Your task to perform on an android device: Do I have any events today? Image 0: 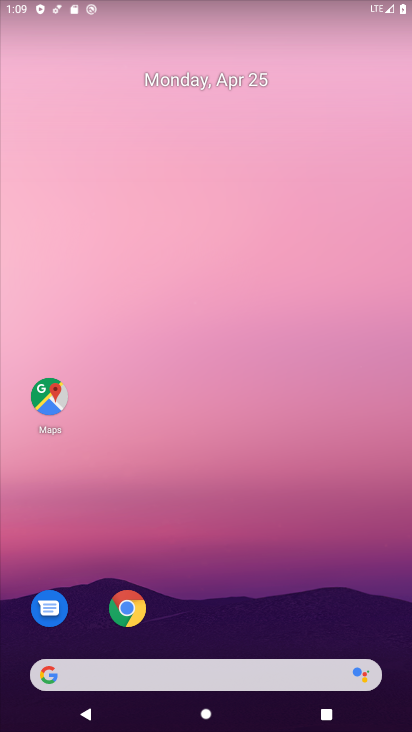
Step 0: drag from (242, 642) to (323, 117)
Your task to perform on an android device: Do I have any events today? Image 1: 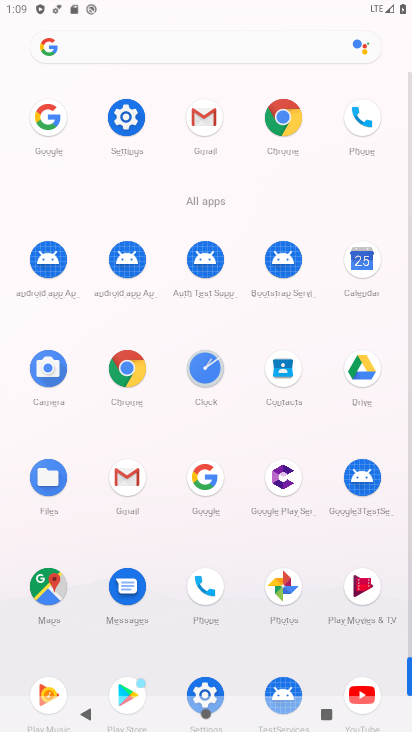
Step 1: click (350, 261)
Your task to perform on an android device: Do I have any events today? Image 2: 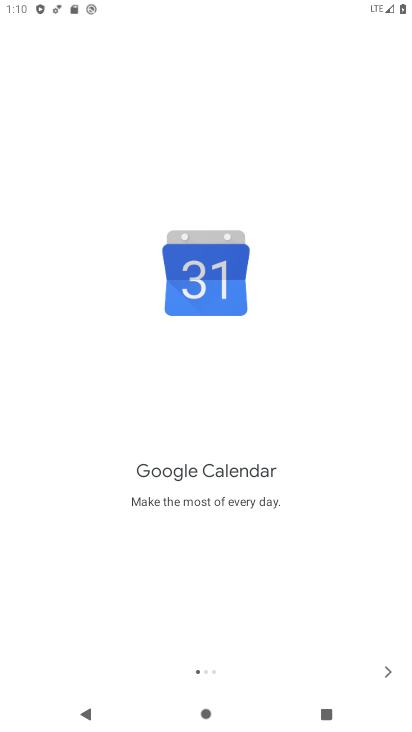
Step 2: click (394, 673)
Your task to perform on an android device: Do I have any events today? Image 3: 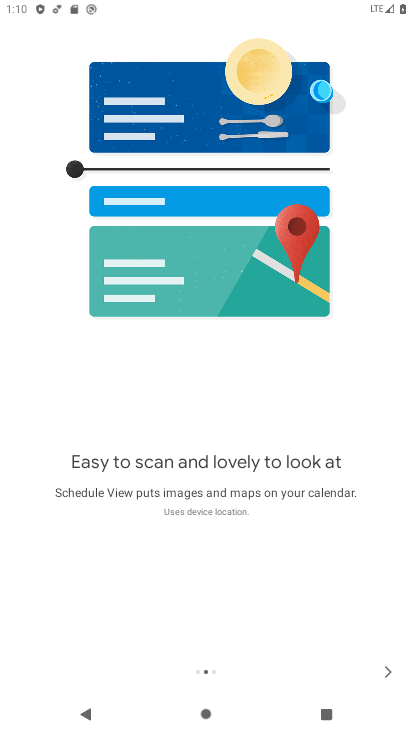
Step 3: click (394, 673)
Your task to perform on an android device: Do I have any events today? Image 4: 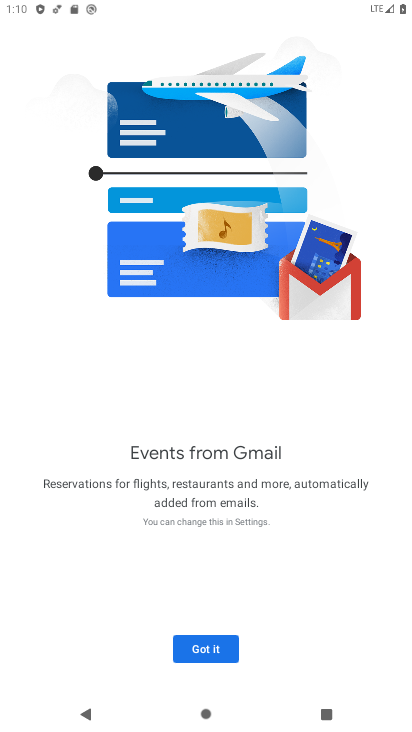
Step 4: click (200, 647)
Your task to perform on an android device: Do I have any events today? Image 5: 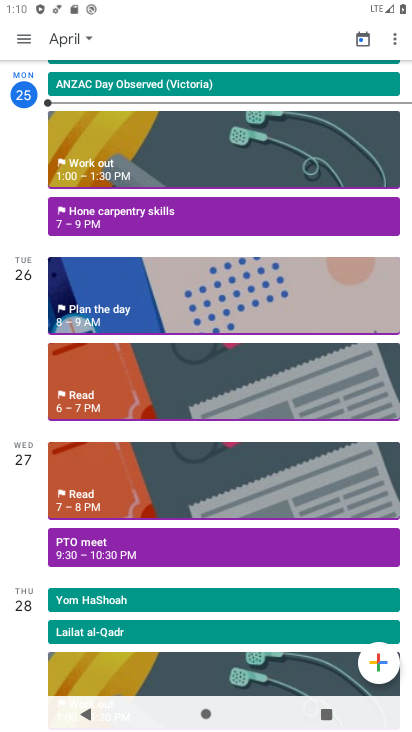
Step 5: task complete